Your task to perform on an android device: Do I have any events this weekend? Image 0: 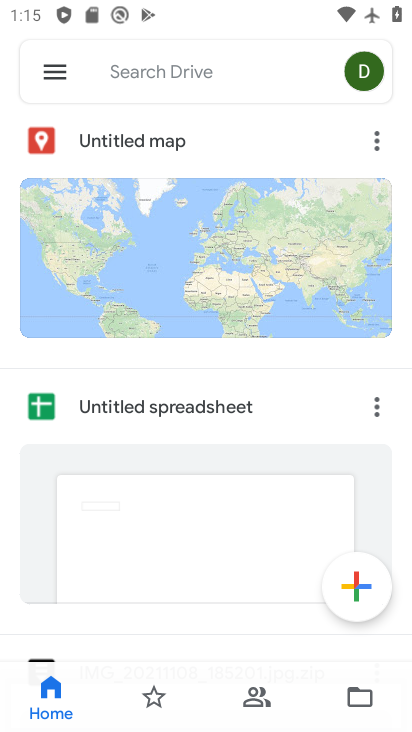
Step 0: press home button
Your task to perform on an android device: Do I have any events this weekend? Image 1: 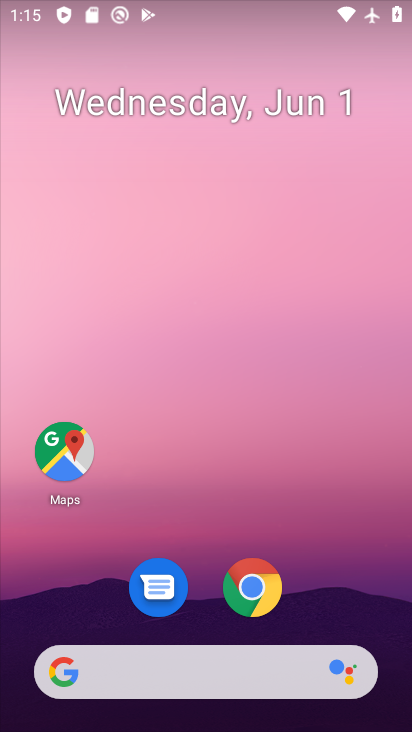
Step 1: drag from (348, 578) to (223, 2)
Your task to perform on an android device: Do I have any events this weekend? Image 2: 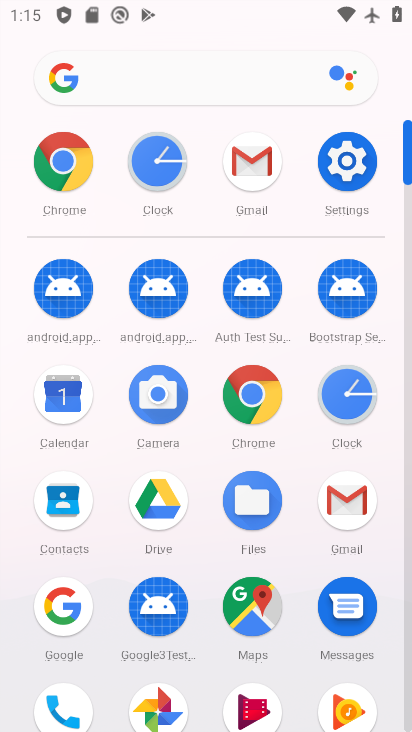
Step 2: click (60, 394)
Your task to perform on an android device: Do I have any events this weekend? Image 3: 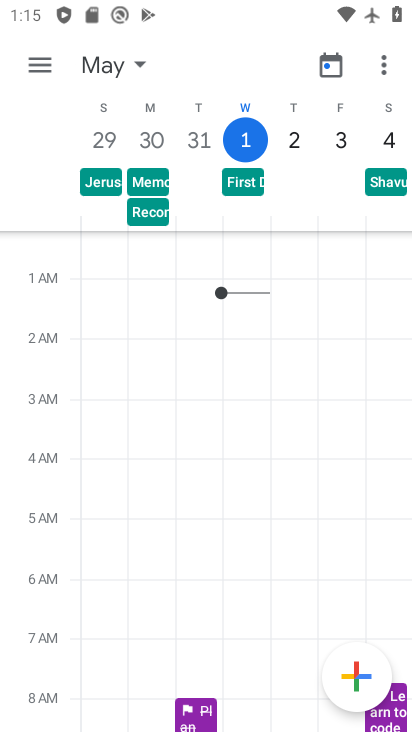
Step 3: task complete